Your task to perform on an android device: Open Google Chrome Image 0: 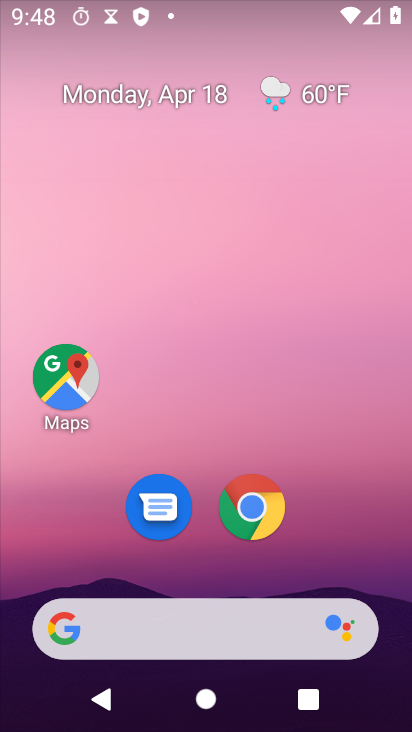
Step 0: click (258, 514)
Your task to perform on an android device: Open Google Chrome Image 1: 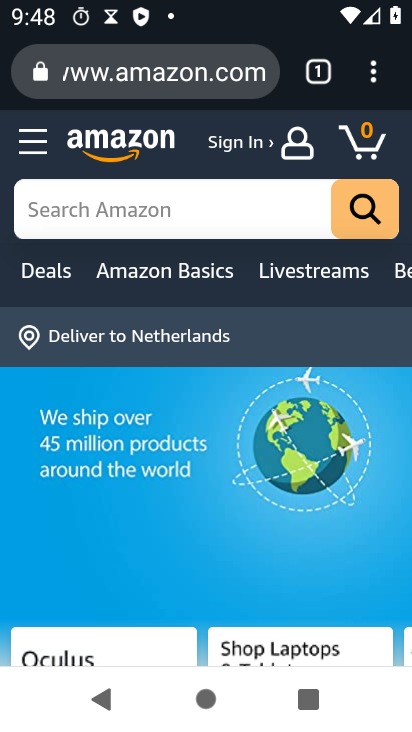
Step 1: task complete